Your task to perform on an android device: Go to CNN.com Image 0: 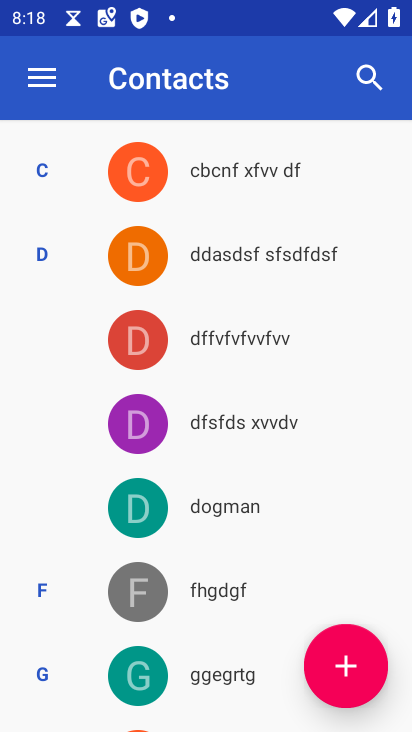
Step 0: press back button
Your task to perform on an android device: Go to CNN.com Image 1: 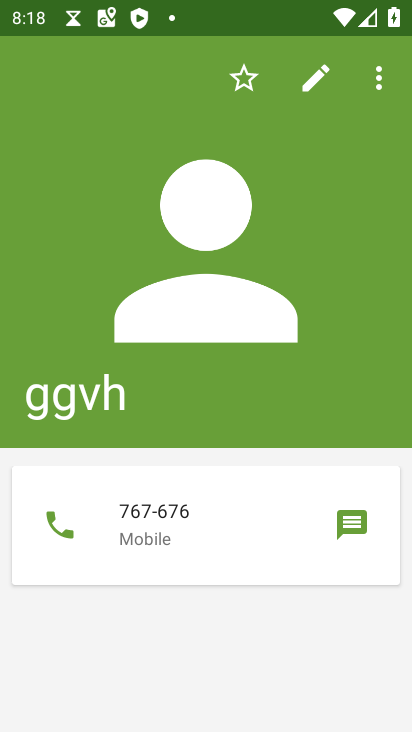
Step 1: press home button
Your task to perform on an android device: Go to CNN.com Image 2: 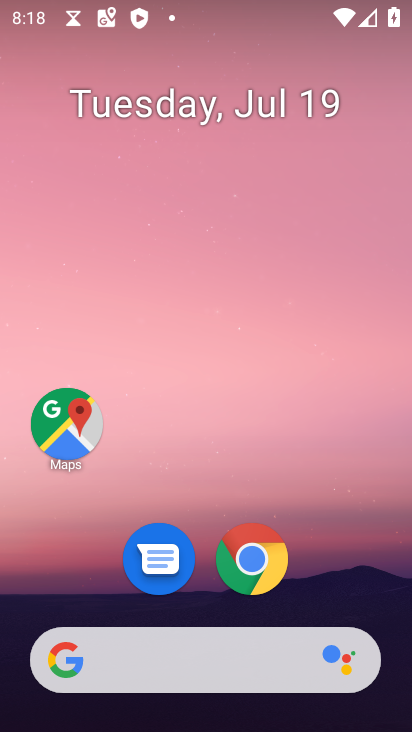
Step 2: click (229, 568)
Your task to perform on an android device: Go to CNN.com Image 3: 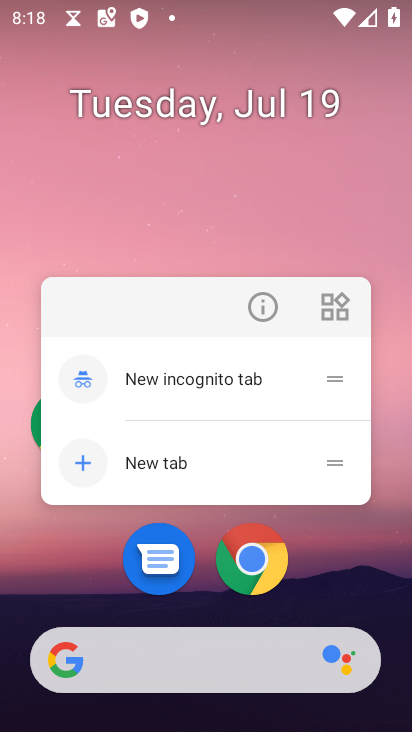
Step 3: click (267, 549)
Your task to perform on an android device: Go to CNN.com Image 4: 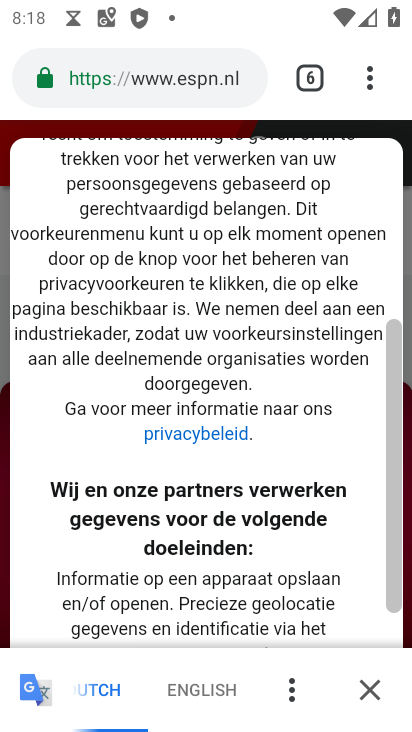
Step 4: click (314, 82)
Your task to perform on an android device: Go to CNN.com Image 5: 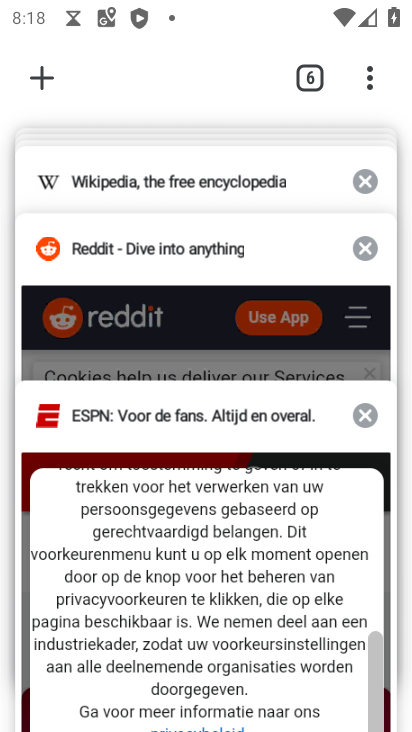
Step 5: drag from (157, 188) to (200, 698)
Your task to perform on an android device: Go to CNN.com Image 6: 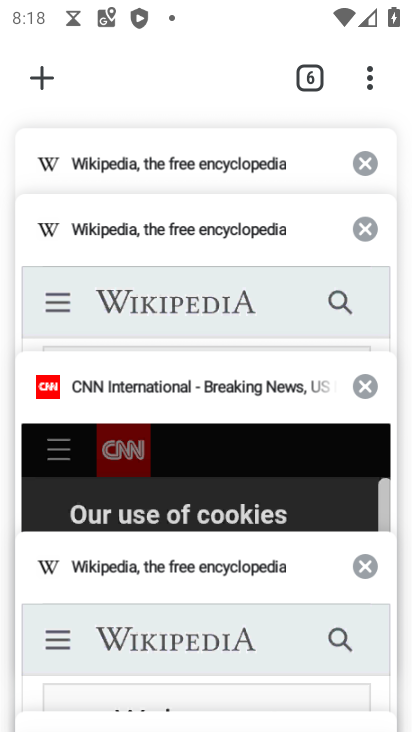
Step 6: click (105, 439)
Your task to perform on an android device: Go to CNN.com Image 7: 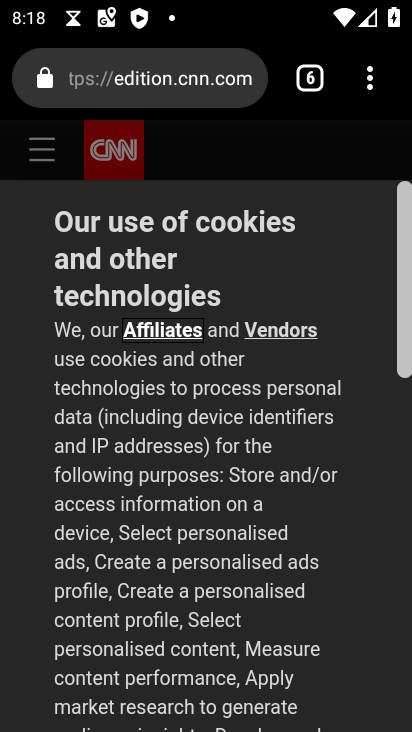
Step 7: task complete